Your task to perform on an android device: check the backup settings in the google photos Image 0: 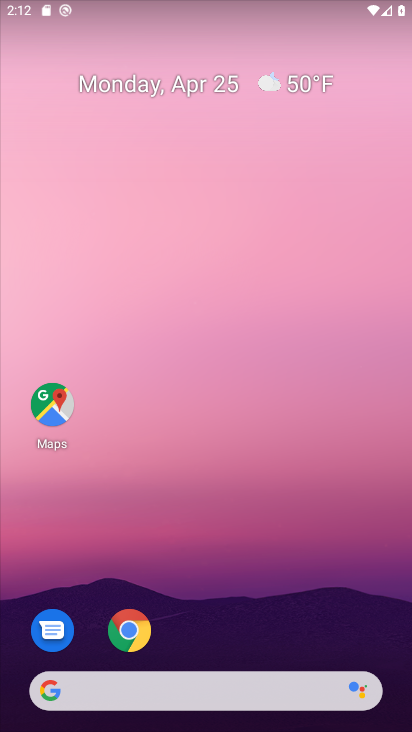
Step 0: drag from (182, 623) to (122, 81)
Your task to perform on an android device: check the backup settings in the google photos Image 1: 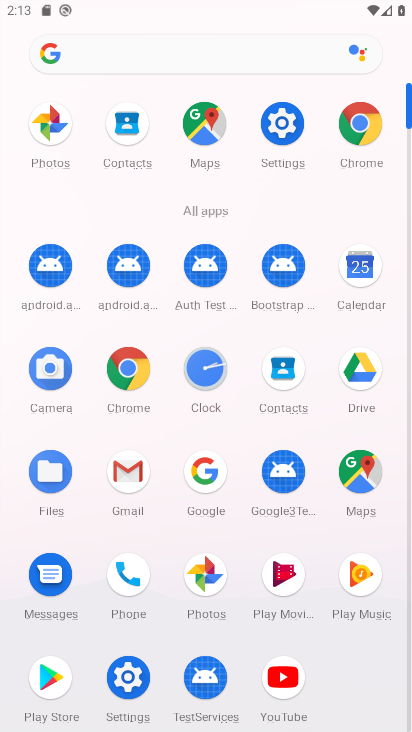
Step 1: click (64, 121)
Your task to perform on an android device: check the backup settings in the google photos Image 2: 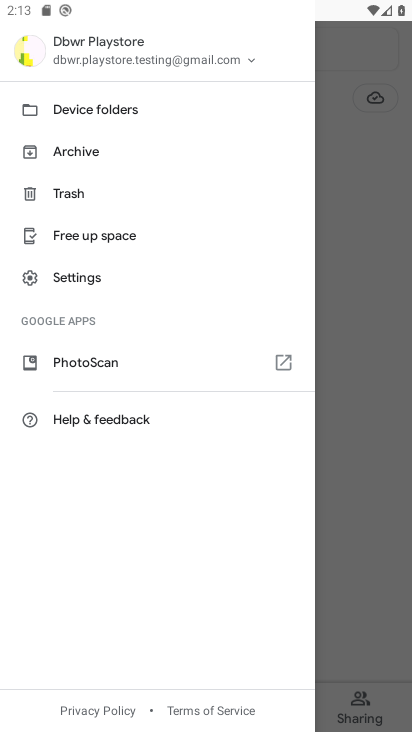
Step 2: click (138, 280)
Your task to perform on an android device: check the backup settings in the google photos Image 3: 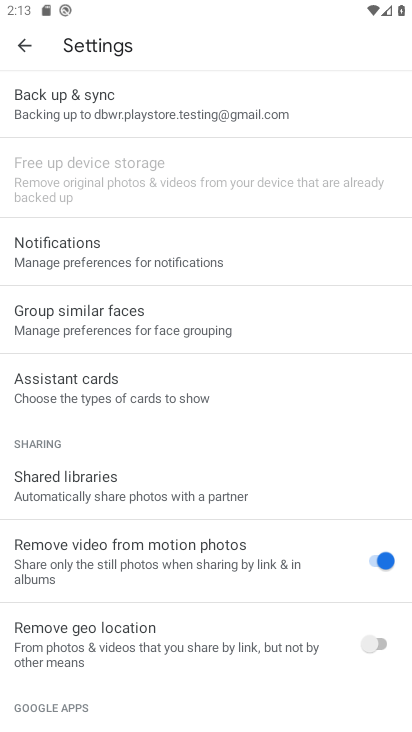
Step 3: click (121, 124)
Your task to perform on an android device: check the backup settings in the google photos Image 4: 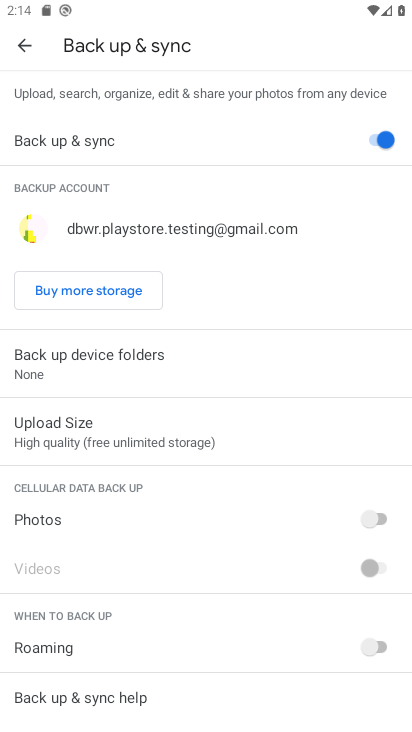
Step 4: task complete